Your task to perform on an android device: see tabs open on other devices in the chrome app Image 0: 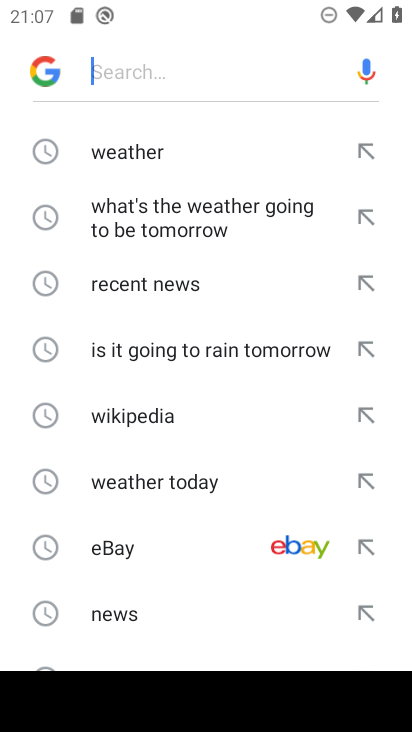
Step 0: press home button
Your task to perform on an android device: see tabs open on other devices in the chrome app Image 1: 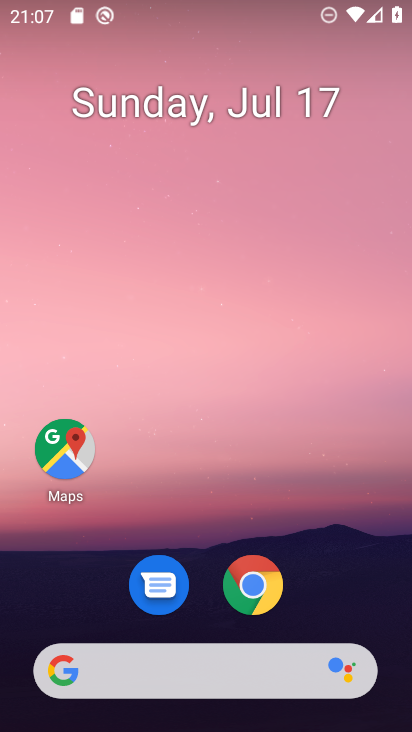
Step 1: click (255, 588)
Your task to perform on an android device: see tabs open on other devices in the chrome app Image 2: 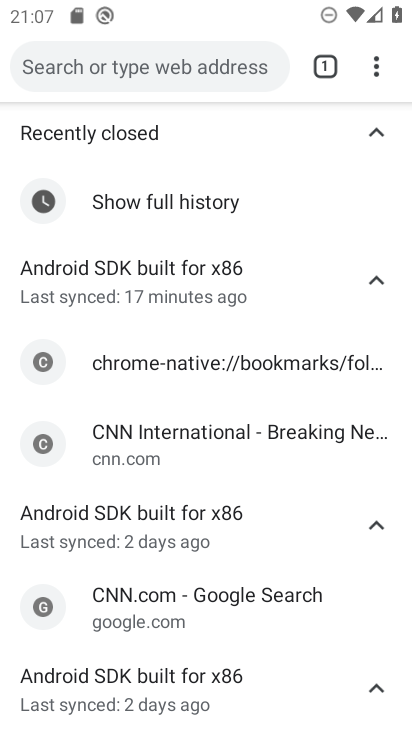
Step 2: task complete